Your task to perform on an android device: uninstall "Google Sheets" Image 0: 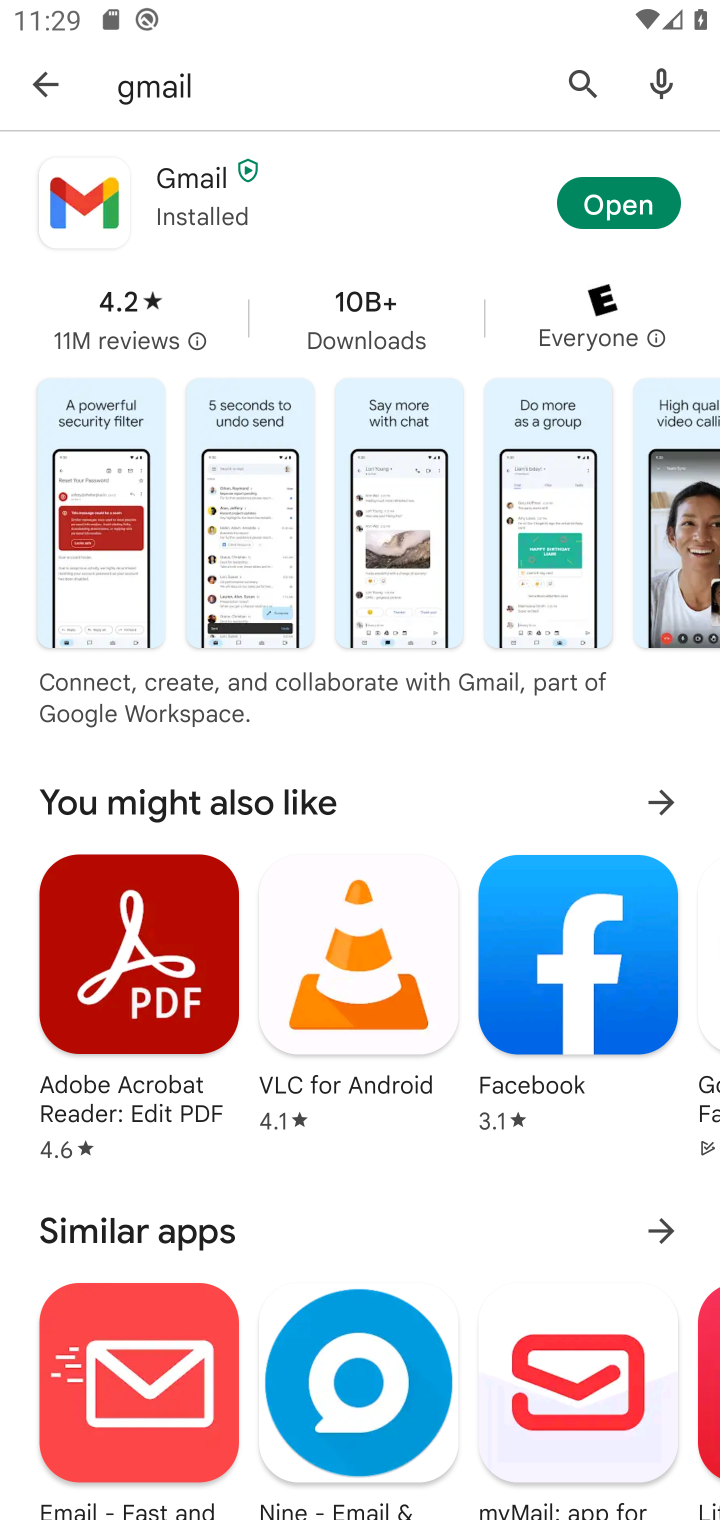
Step 0: click (557, 83)
Your task to perform on an android device: uninstall "Google Sheets" Image 1: 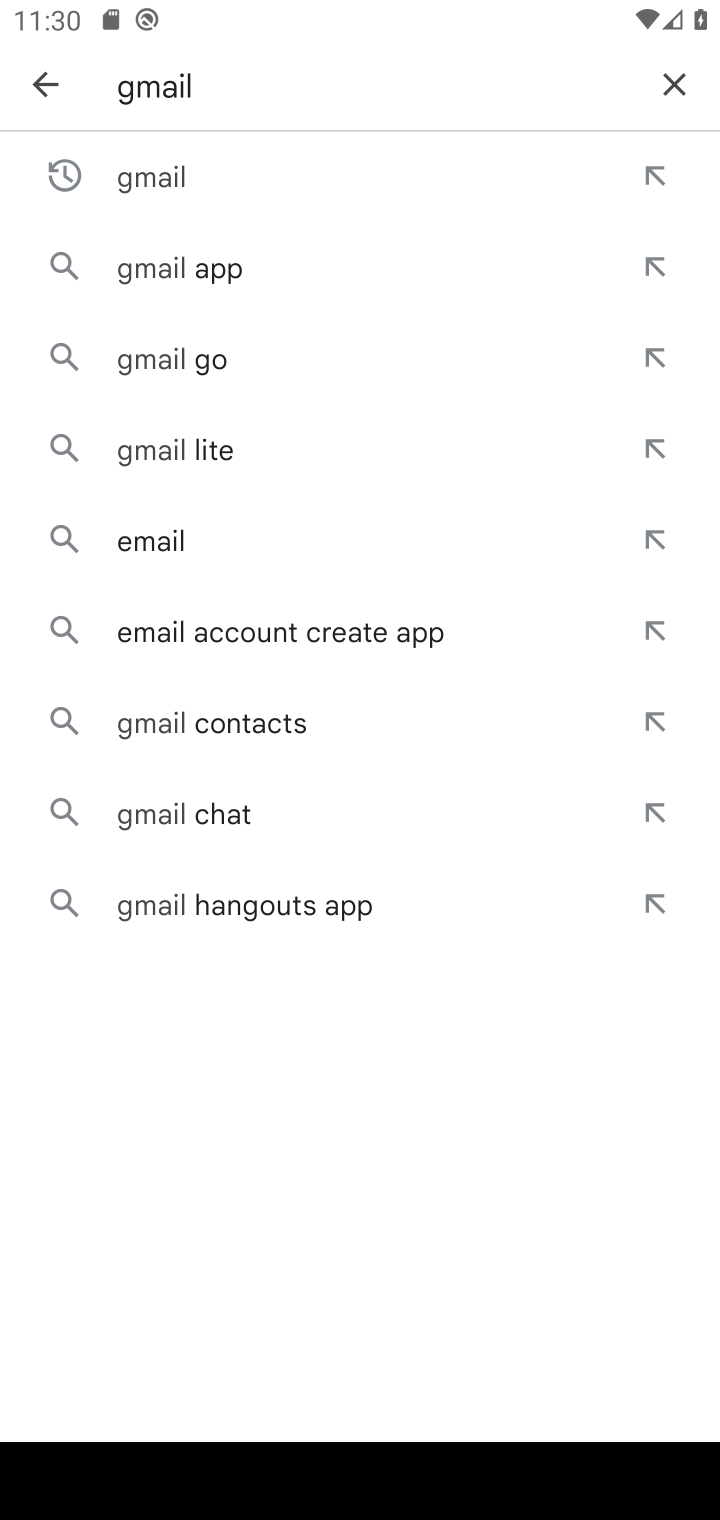
Step 1: click (666, 92)
Your task to perform on an android device: uninstall "Google Sheets" Image 2: 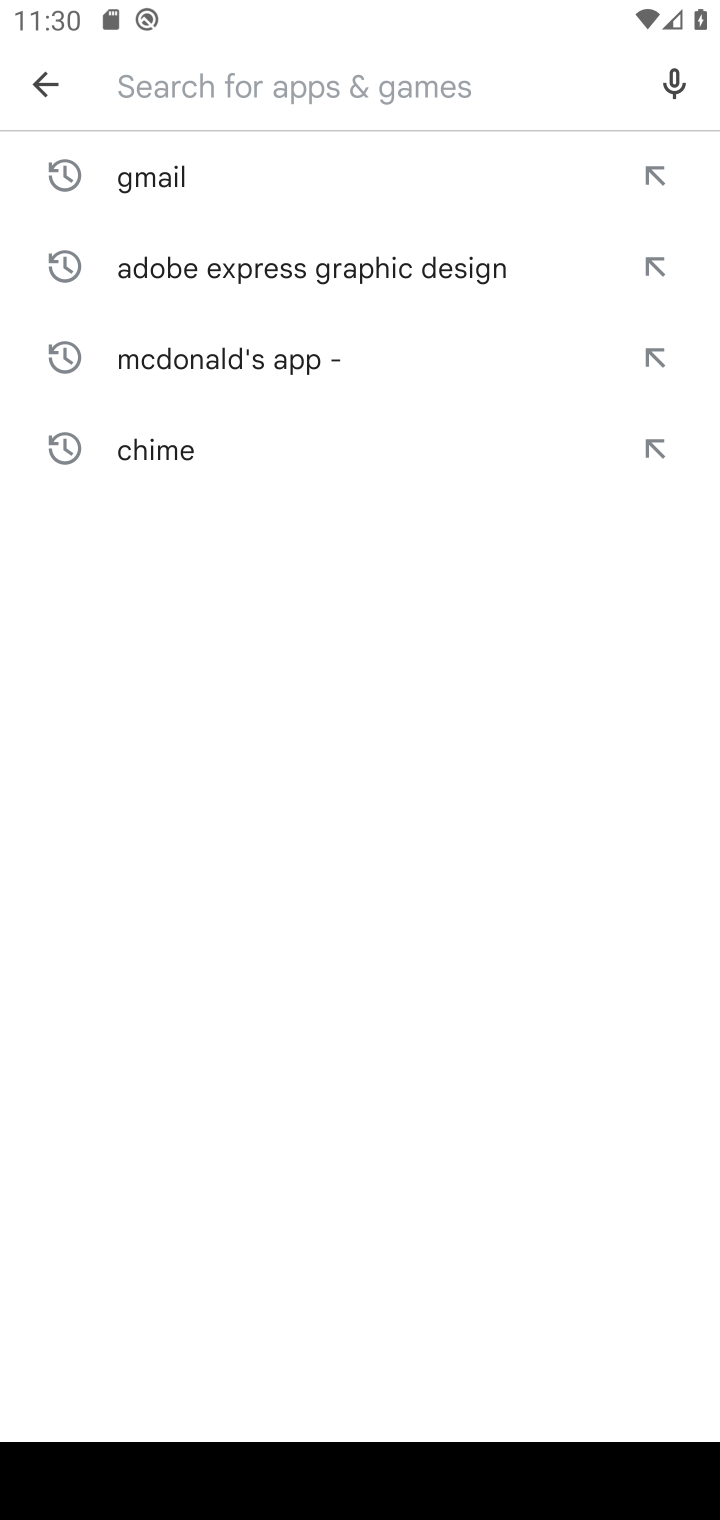
Step 2: type "Google Sheets"
Your task to perform on an android device: uninstall "Google Sheets" Image 3: 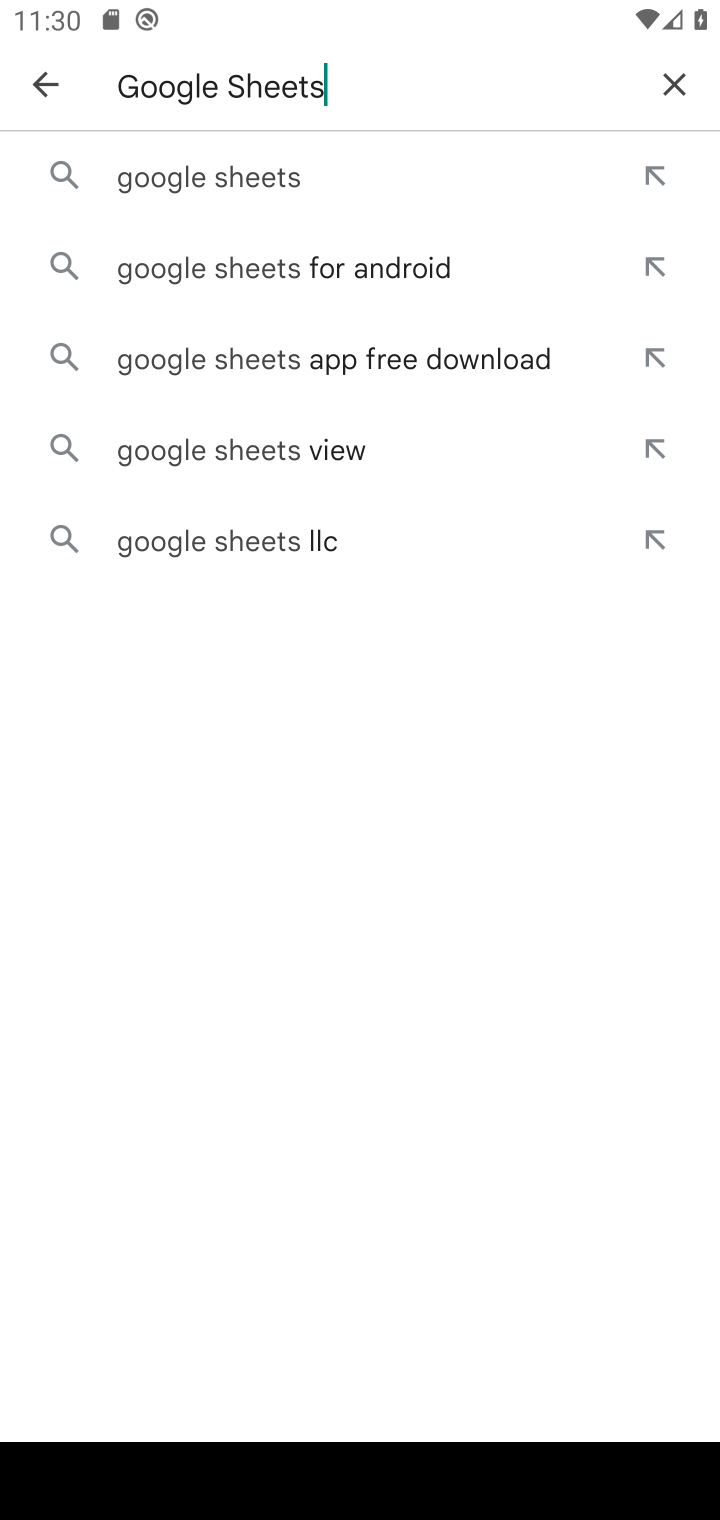
Step 3: click (319, 172)
Your task to perform on an android device: uninstall "Google Sheets" Image 4: 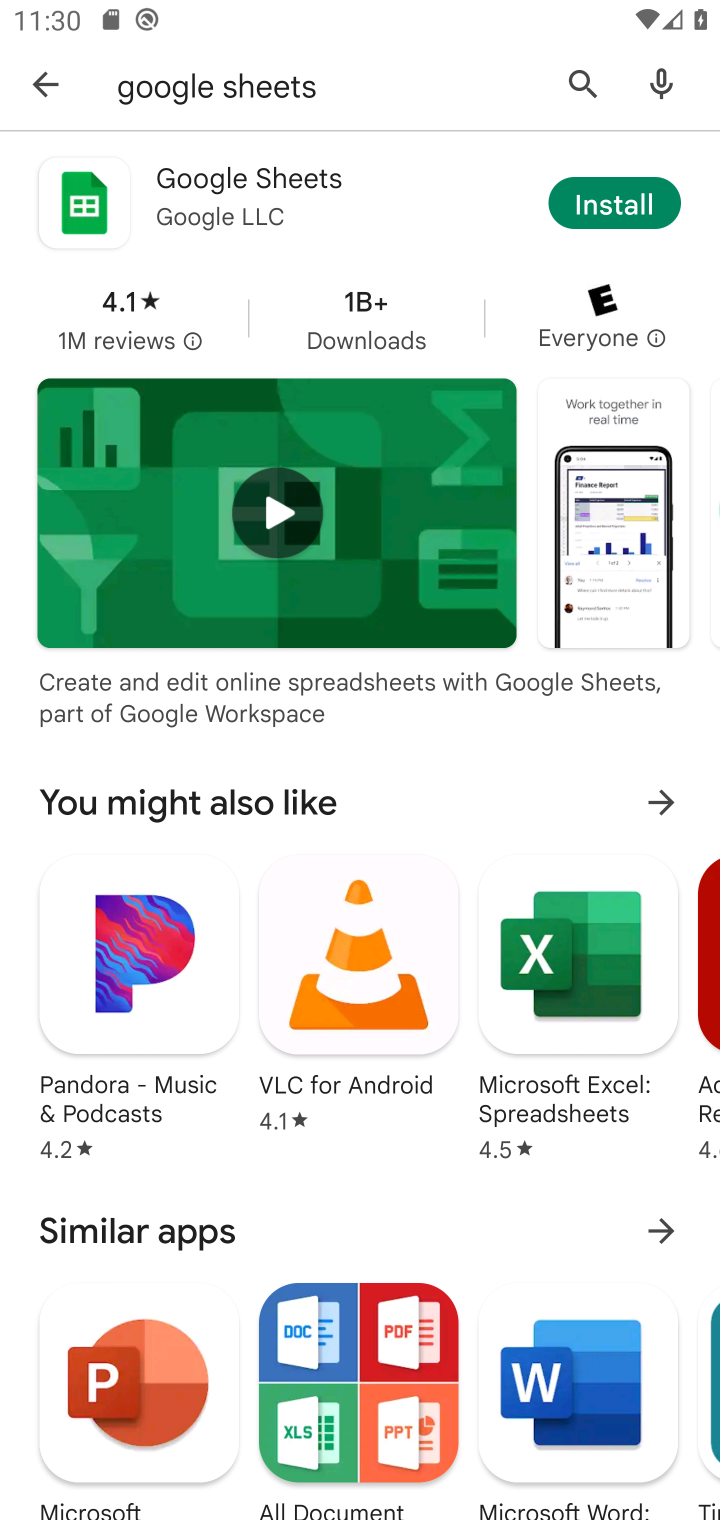
Step 4: task complete